Your task to perform on an android device: Check the settings for the Lyft app Image 0: 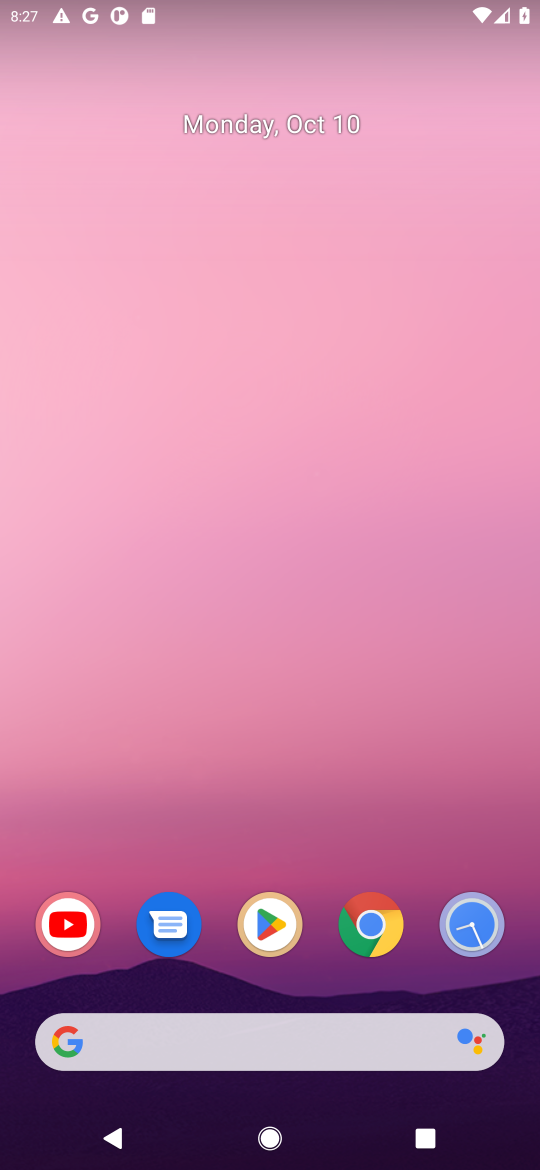
Step 0: drag from (154, 1022) to (371, 85)
Your task to perform on an android device: Check the settings for the Lyft app Image 1: 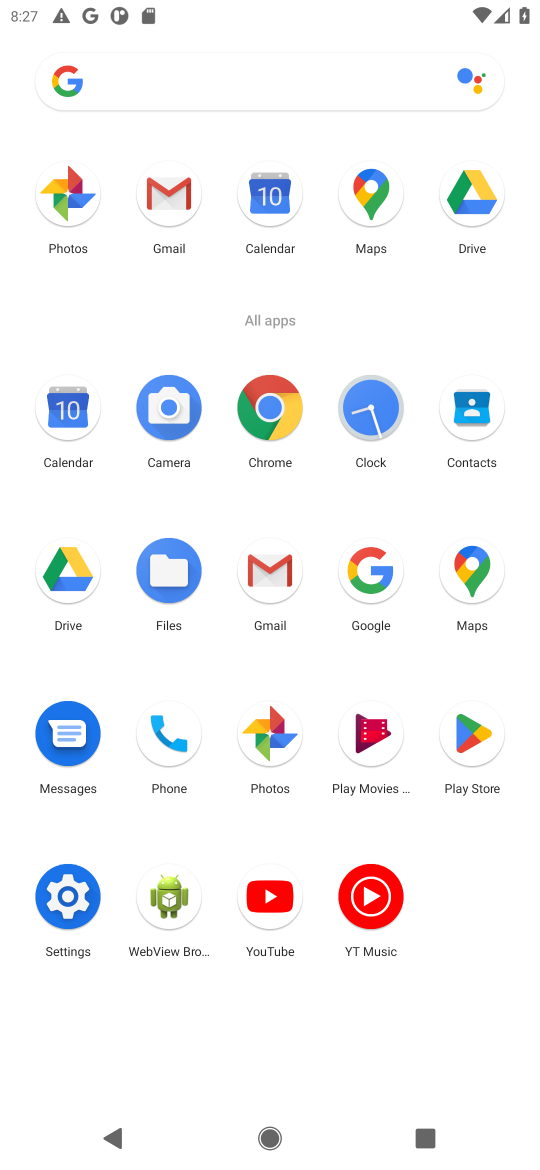
Step 1: task complete